Your task to perform on an android device: Add razer nari to the cart on costco.com Image 0: 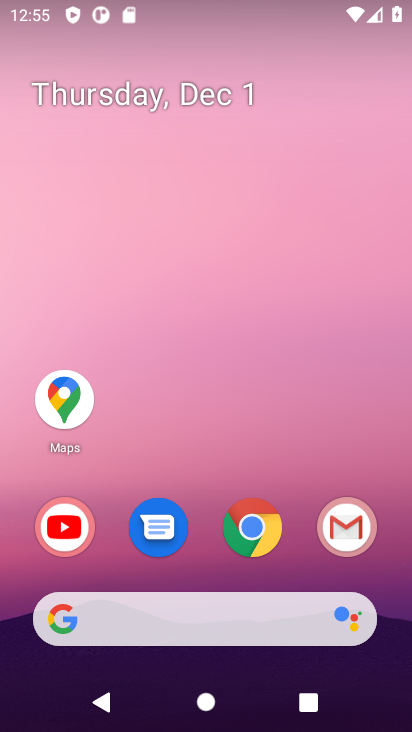
Step 0: click (261, 532)
Your task to perform on an android device: Add razer nari to the cart on costco.com Image 1: 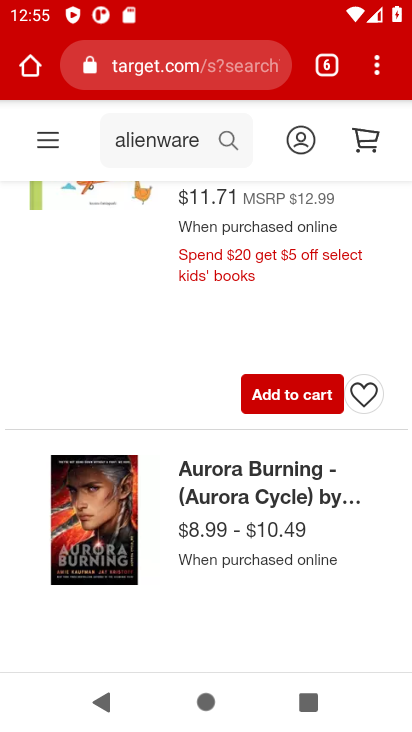
Step 1: click (166, 69)
Your task to perform on an android device: Add razer nari to the cart on costco.com Image 2: 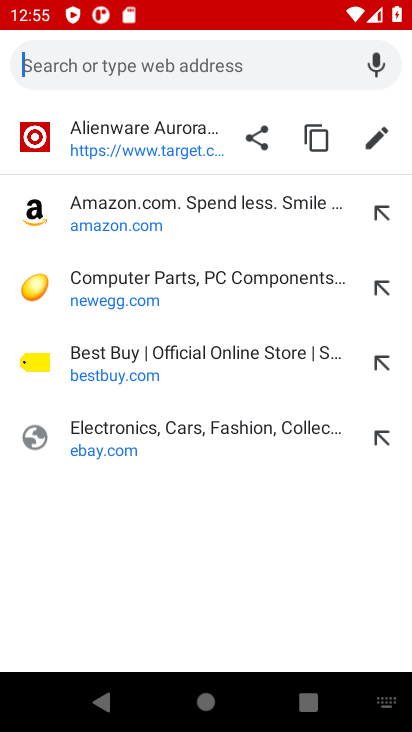
Step 2: type "costco.com"
Your task to perform on an android device: Add razer nari to the cart on costco.com Image 3: 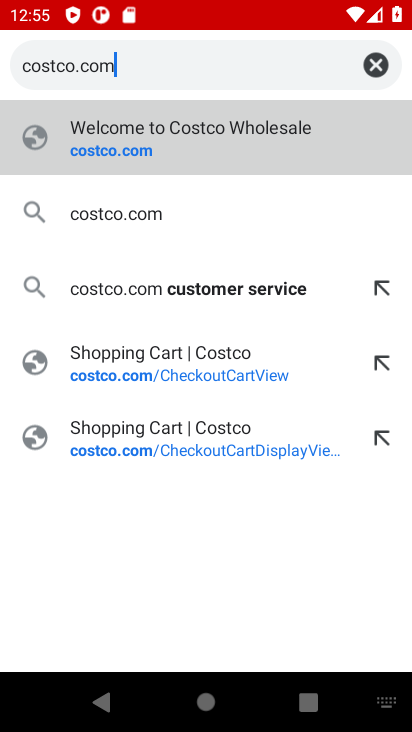
Step 3: click (125, 144)
Your task to perform on an android device: Add razer nari to the cart on costco.com Image 4: 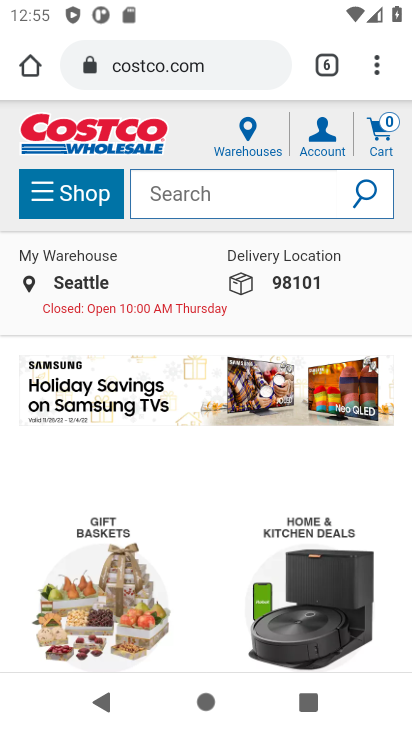
Step 4: click (159, 186)
Your task to perform on an android device: Add razer nari to the cart on costco.com Image 5: 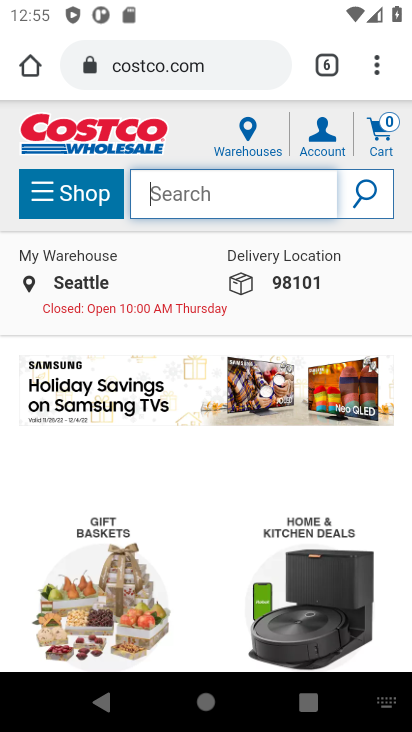
Step 5: type "razer nari"
Your task to perform on an android device: Add razer nari to the cart on costco.com Image 6: 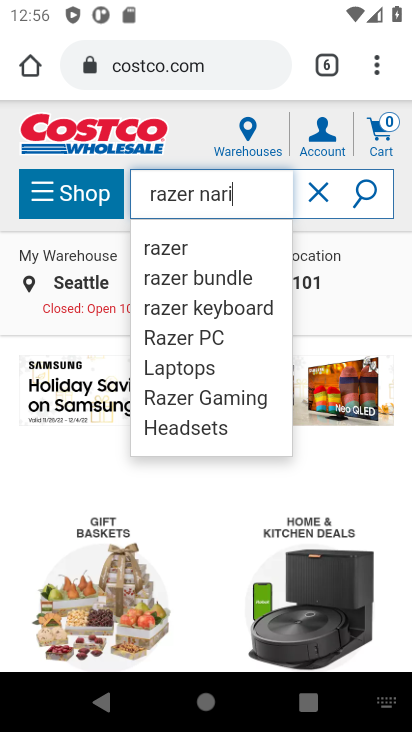
Step 6: click (357, 191)
Your task to perform on an android device: Add razer nari to the cart on costco.com Image 7: 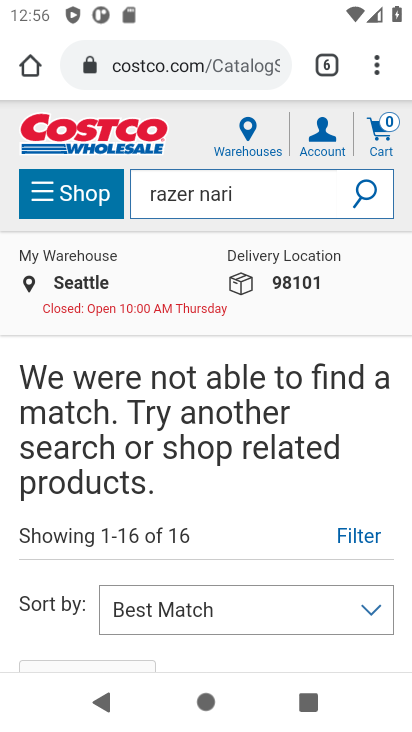
Step 7: task complete